Your task to perform on an android device: remove spam from my inbox in the gmail app Image 0: 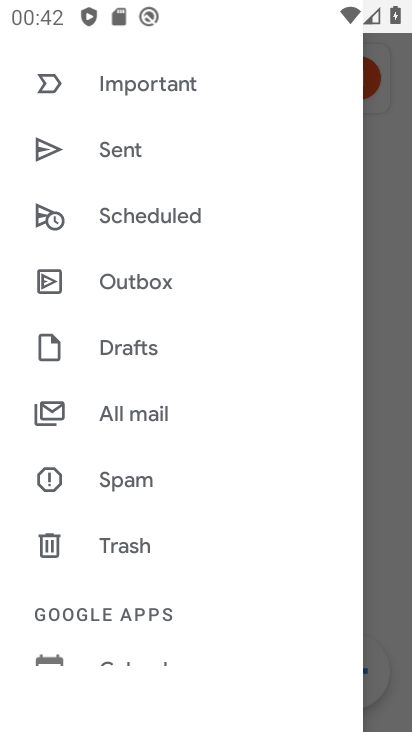
Step 0: press home button
Your task to perform on an android device: remove spam from my inbox in the gmail app Image 1: 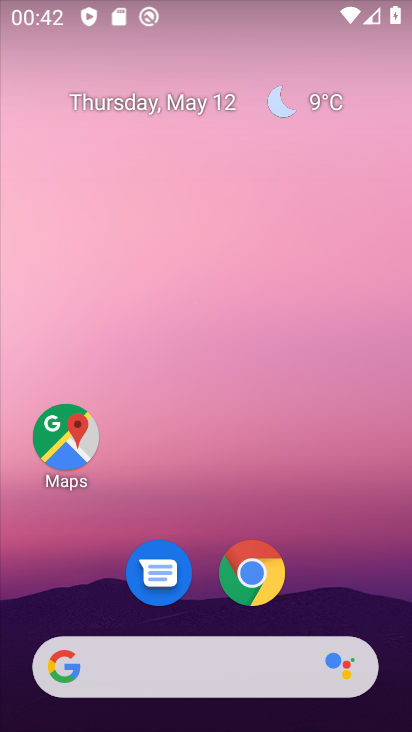
Step 1: drag from (208, 589) to (330, 27)
Your task to perform on an android device: remove spam from my inbox in the gmail app Image 2: 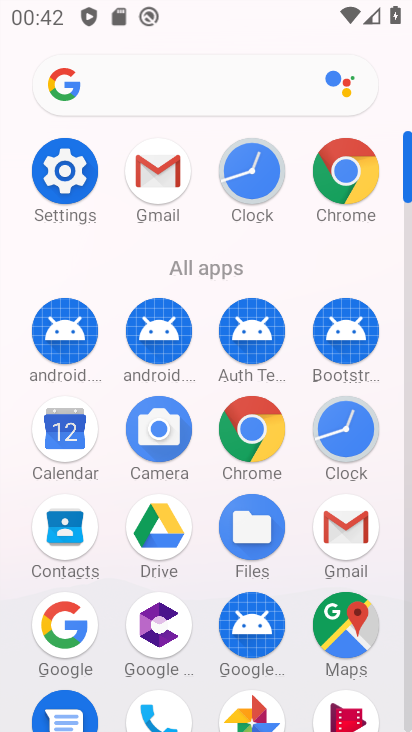
Step 2: click (347, 538)
Your task to perform on an android device: remove spam from my inbox in the gmail app Image 3: 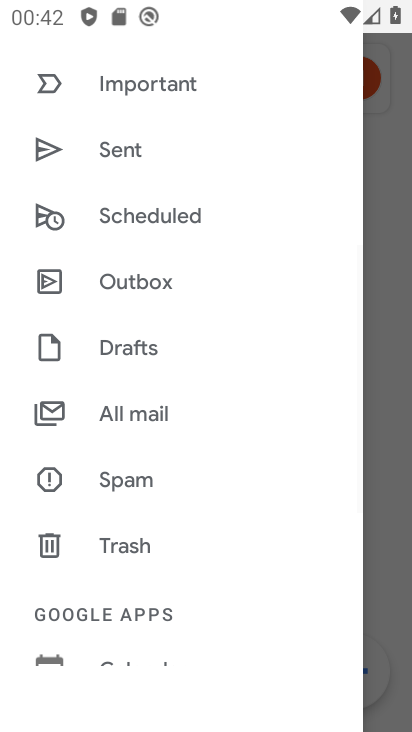
Step 3: click (124, 487)
Your task to perform on an android device: remove spam from my inbox in the gmail app Image 4: 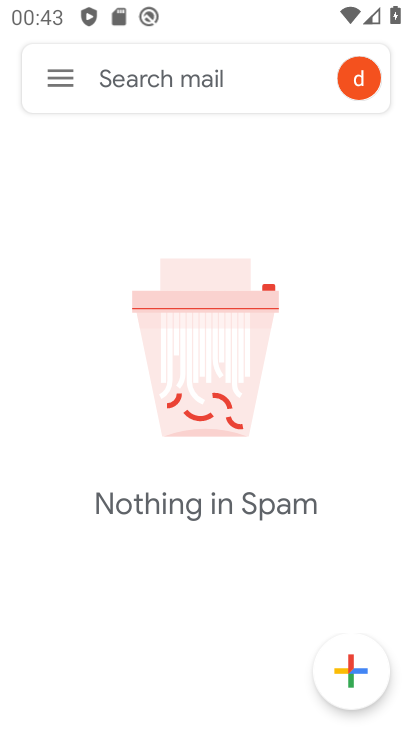
Step 4: task complete